Your task to perform on an android device: turn on data saver in the chrome app Image 0: 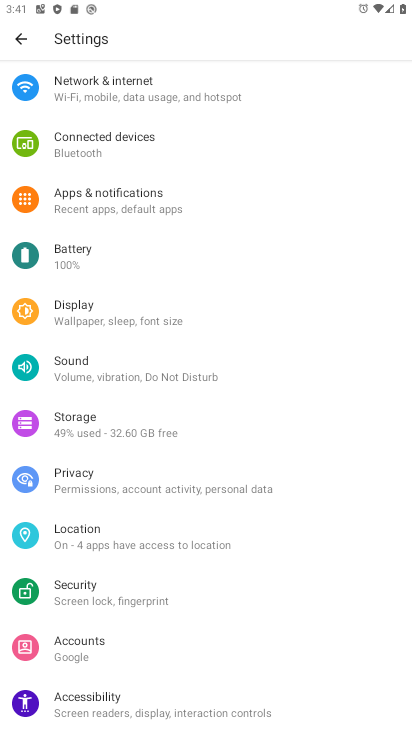
Step 0: press home button
Your task to perform on an android device: turn on data saver in the chrome app Image 1: 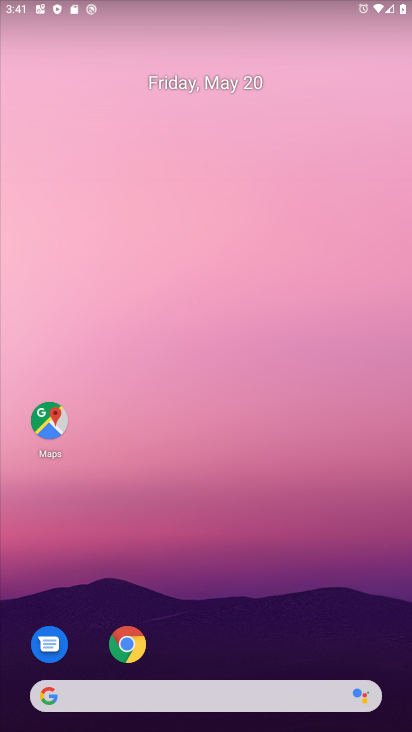
Step 1: drag from (242, 647) to (220, 192)
Your task to perform on an android device: turn on data saver in the chrome app Image 2: 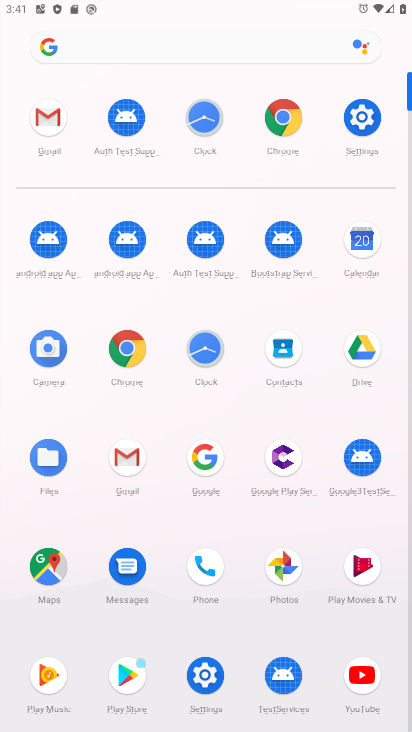
Step 2: click (288, 123)
Your task to perform on an android device: turn on data saver in the chrome app Image 3: 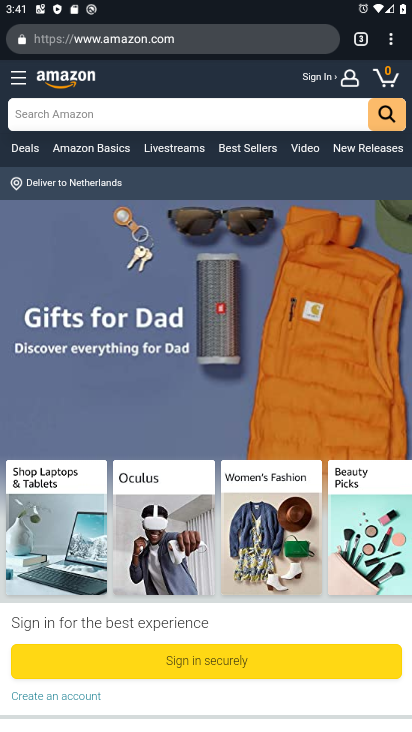
Step 3: click (388, 43)
Your task to perform on an android device: turn on data saver in the chrome app Image 4: 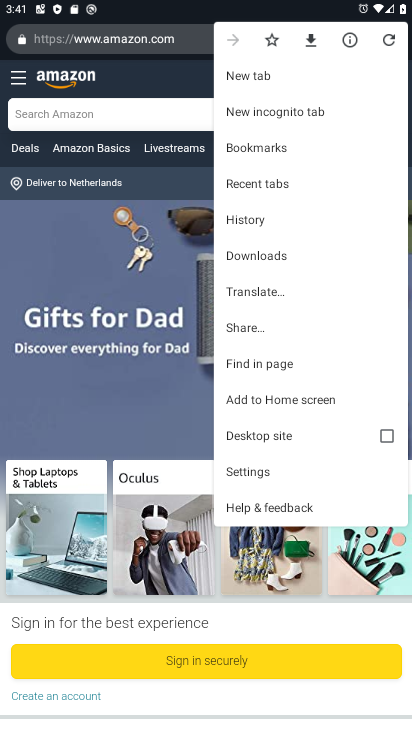
Step 4: click (283, 463)
Your task to perform on an android device: turn on data saver in the chrome app Image 5: 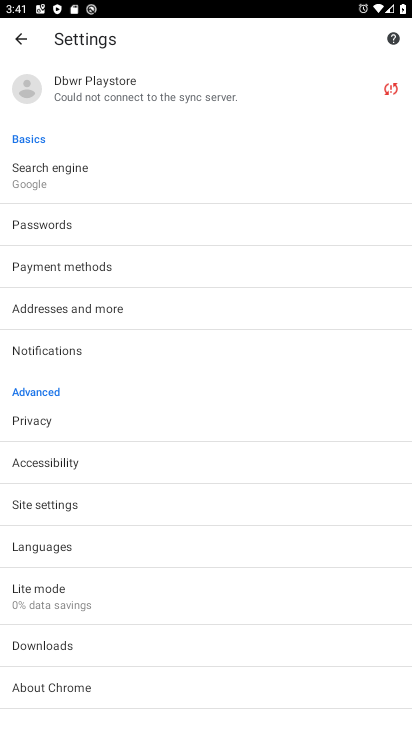
Step 5: click (214, 609)
Your task to perform on an android device: turn on data saver in the chrome app Image 6: 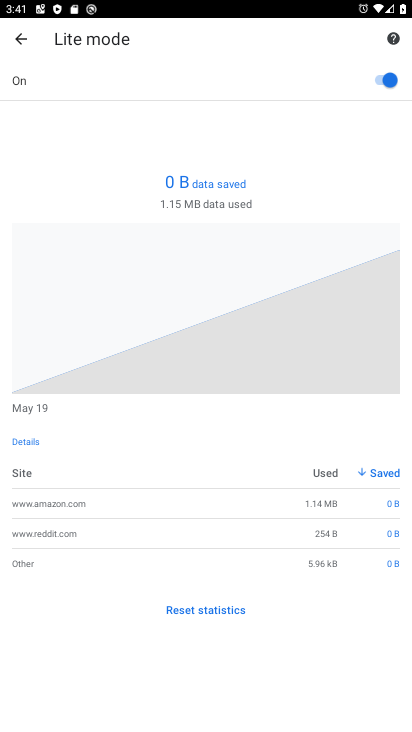
Step 6: click (400, 76)
Your task to perform on an android device: turn on data saver in the chrome app Image 7: 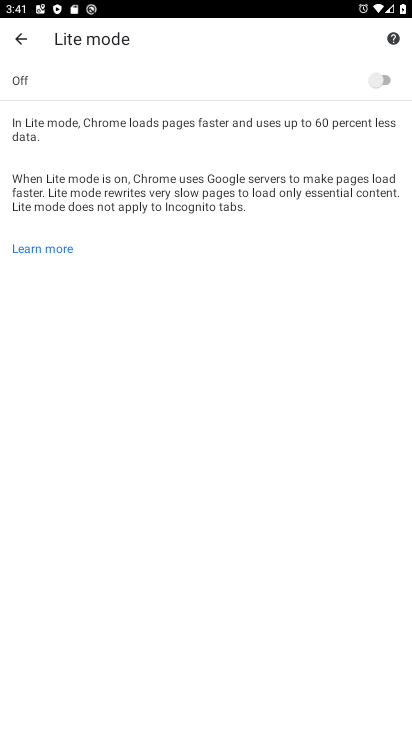
Step 7: task complete